Your task to perform on an android device: toggle improve location accuracy Image 0: 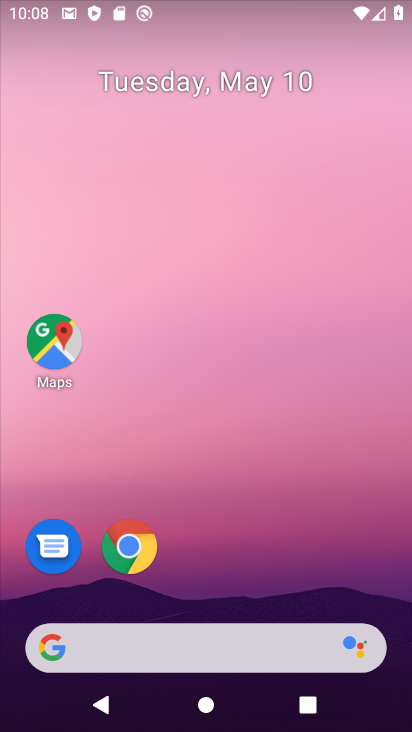
Step 0: drag from (268, 292) to (272, 63)
Your task to perform on an android device: toggle improve location accuracy Image 1: 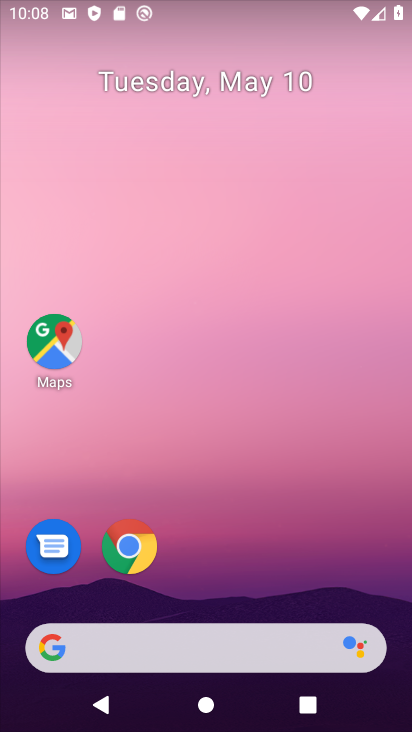
Step 1: drag from (322, 484) to (229, 17)
Your task to perform on an android device: toggle improve location accuracy Image 2: 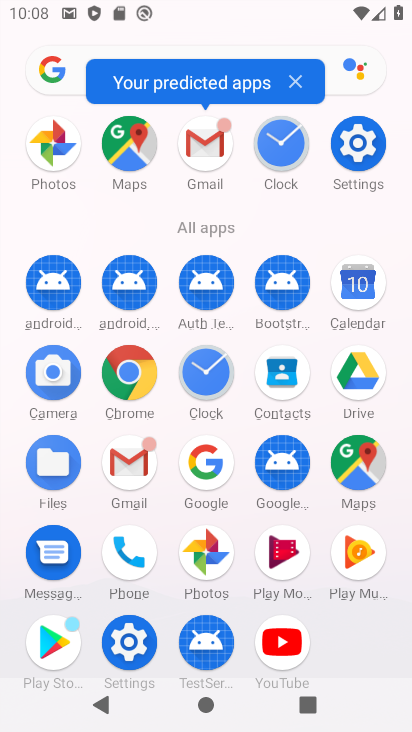
Step 2: click (356, 149)
Your task to perform on an android device: toggle improve location accuracy Image 3: 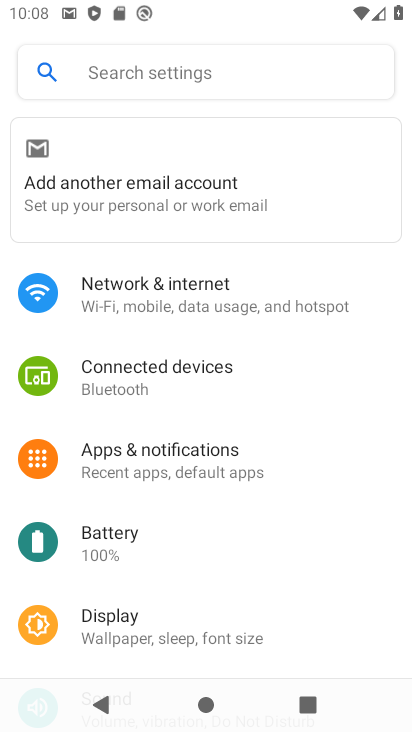
Step 3: drag from (261, 598) to (314, 157)
Your task to perform on an android device: toggle improve location accuracy Image 4: 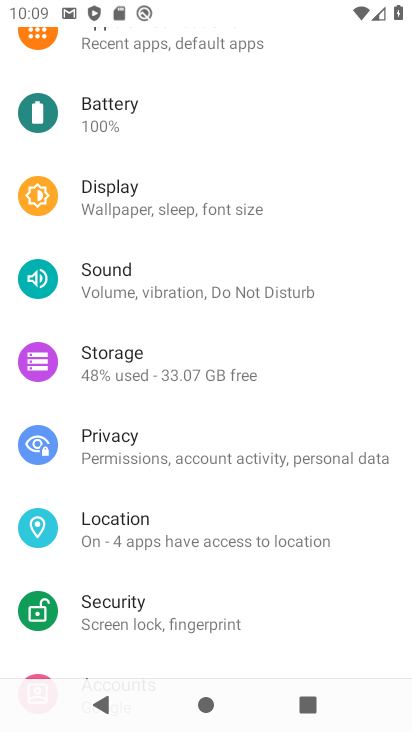
Step 4: drag from (277, 588) to (313, 177)
Your task to perform on an android device: toggle improve location accuracy Image 5: 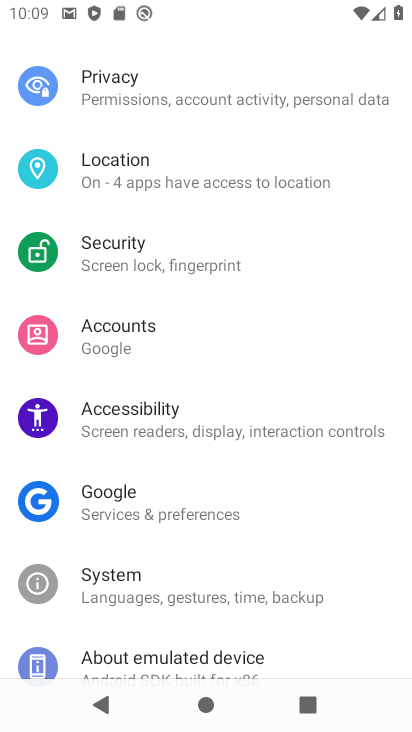
Step 5: drag from (199, 527) to (231, 328)
Your task to perform on an android device: toggle improve location accuracy Image 6: 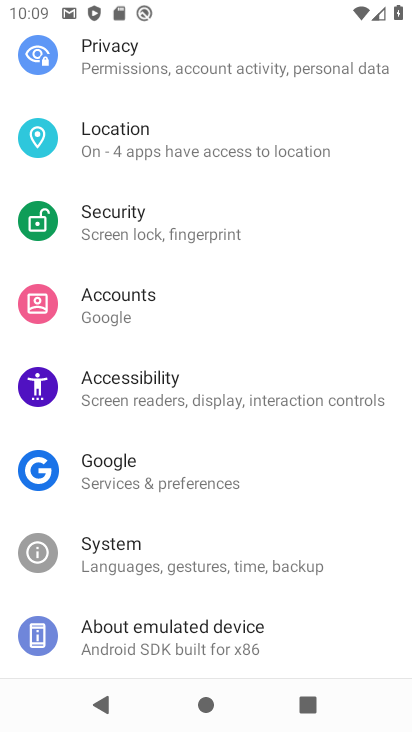
Step 6: click (167, 145)
Your task to perform on an android device: toggle improve location accuracy Image 7: 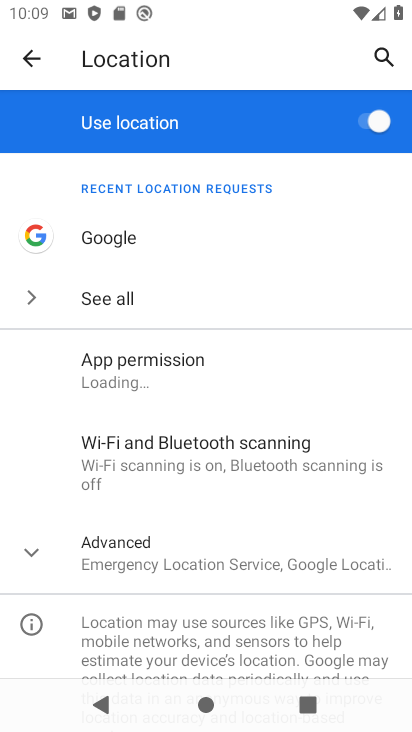
Step 7: click (268, 568)
Your task to perform on an android device: toggle improve location accuracy Image 8: 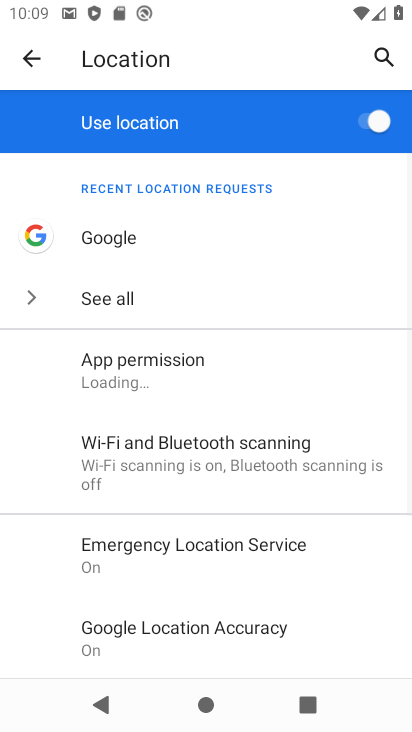
Step 8: drag from (309, 538) to (342, 125)
Your task to perform on an android device: toggle improve location accuracy Image 9: 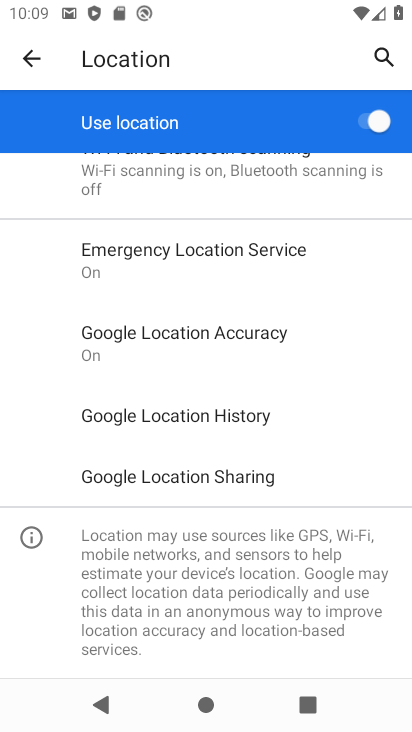
Step 9: click (231, 343)
Your task to perform on an android device: toggle improve location accuracy Image 10: 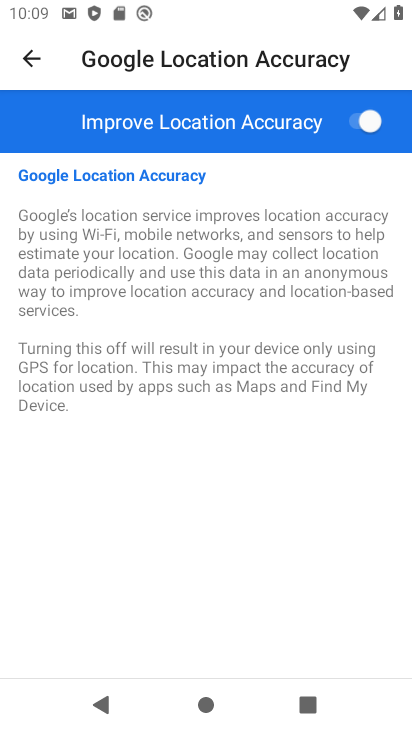
Step 10: click (361, 120)
Your task to perform on an android device: toggle improve location accuracy Image 11: 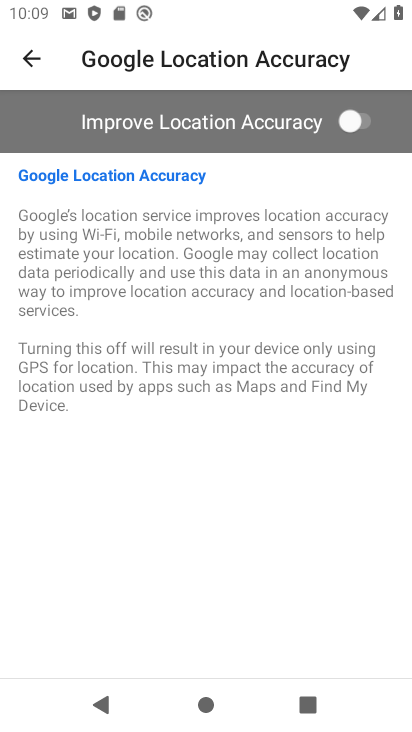
Step 11: task complete